Your task to perform on an android device: Go to sound settings Image 0: 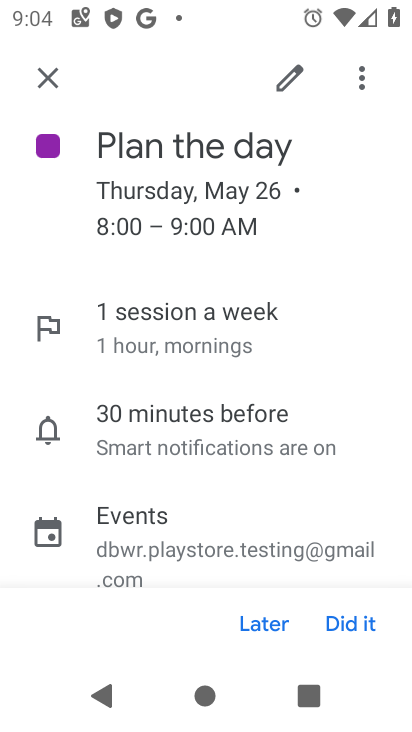
Step 0: press home button
Your task to perform on an android device: Go to sound settings Image 1: 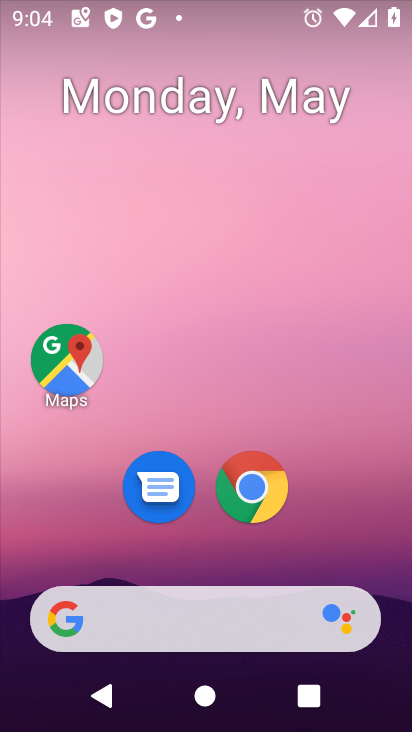
Step 1: drag from (220, 553) to (194, 6)
Your task to perform on an android device: Go to sound settings Image 2: 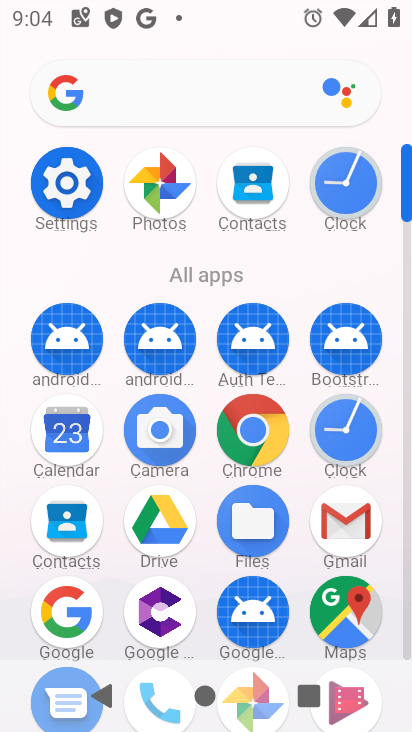
Step 2: click (50, 175)
Your task to perform on an android device: Go to sound settings Image 3: 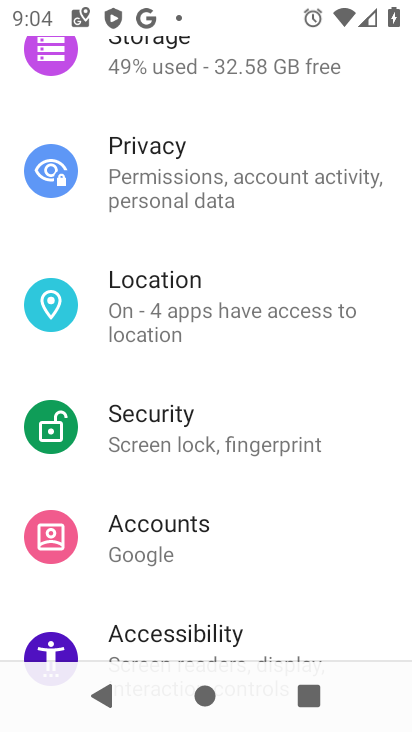
Step 3: drag from (81, 100) to (137, 601)
Your task to perform on an android device: Go to sound settings Image 4: 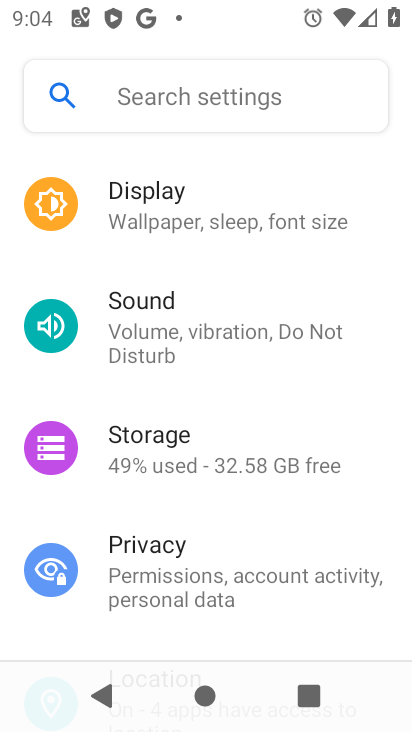
Step 4: click (135, 325)
Your task to perform on an android device: Go to sound settings Image 5: 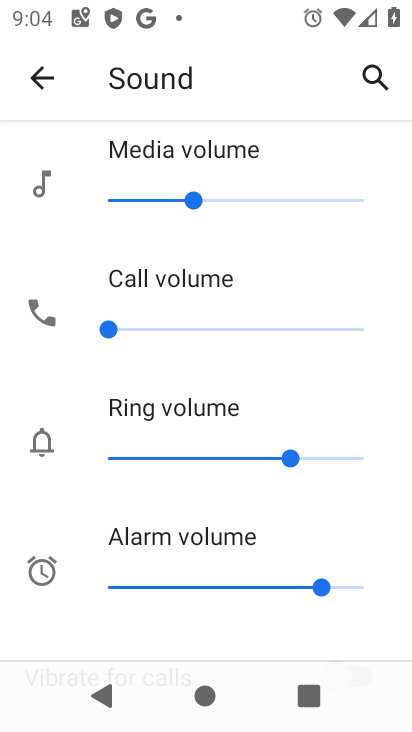
Step 5: task complete